Your task to perform on an android device: star an email in the gmail app Image 0: 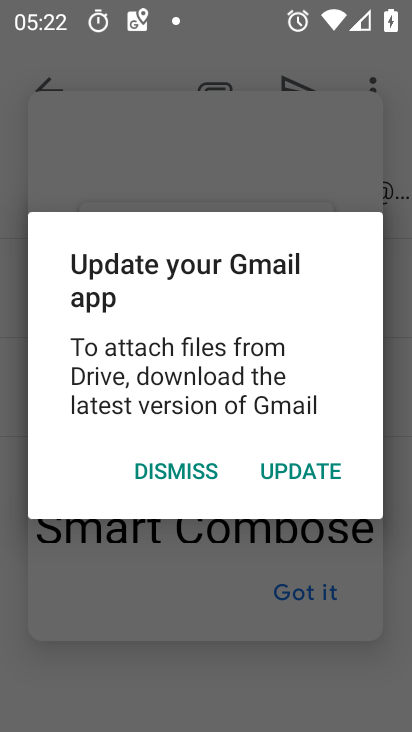
Step 0: press home button
Your task to perform on an android device: star an email in the gmail app Image 1: 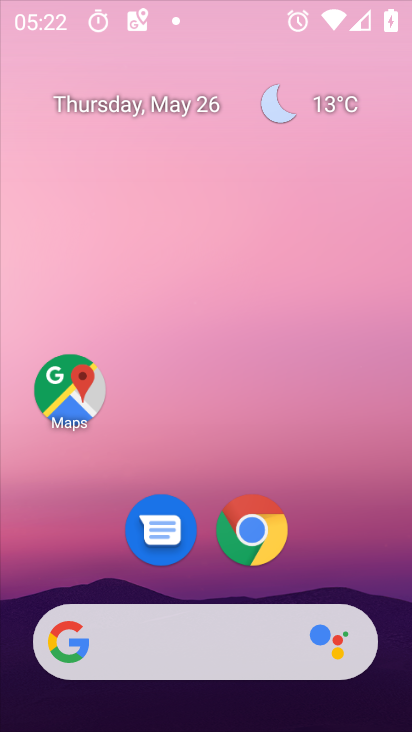
Step 1: drag from (339, 663) to (389, 36)
Your task to perform on an android device: star an email in the gmail app Image 2: 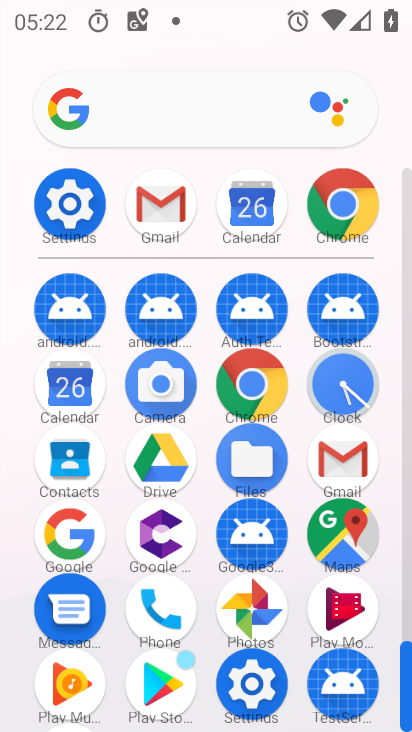
Step 2: click (343, 475)
Your task to perform on an android device: star an email in the gmail app Image 3: 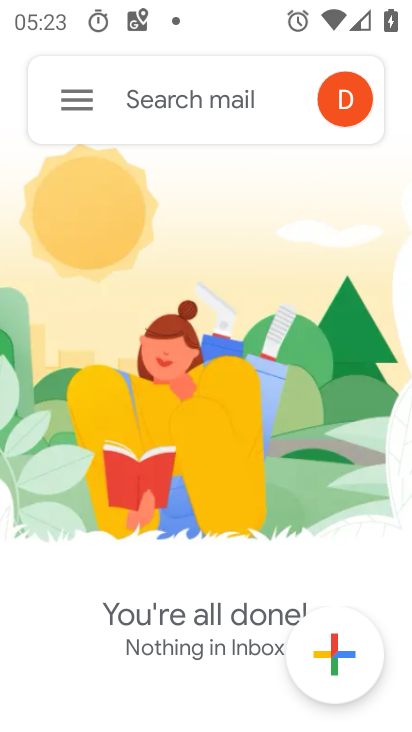
Step 3: click (80, 92)
Your task to perform on an android device: star an email in the gmail app Image 4: 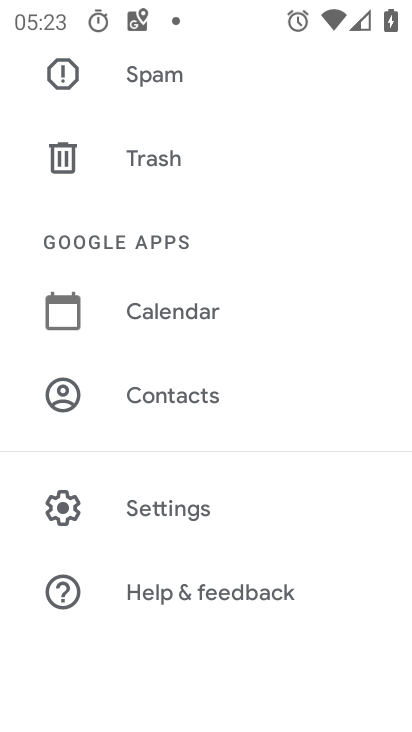
Step 4: drag from (192, 199) to (200, 725)
Your task to perform on an android device: star an email in the gmail app Image 5: 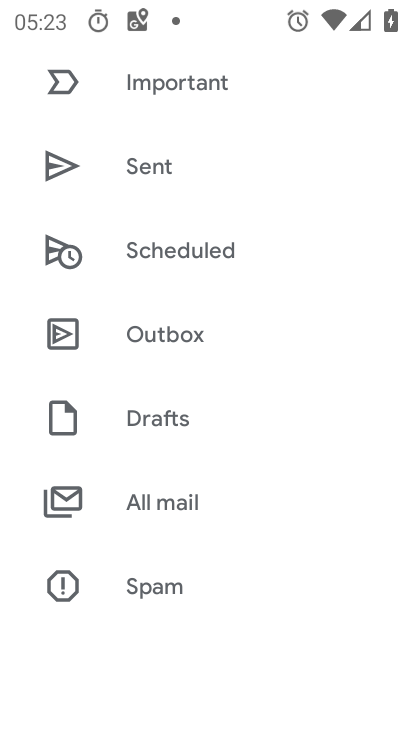
Step 5: drag from (175, 259) to (199, 724)
Your task to perform on an android device: star an email in the gmail app Image 6: 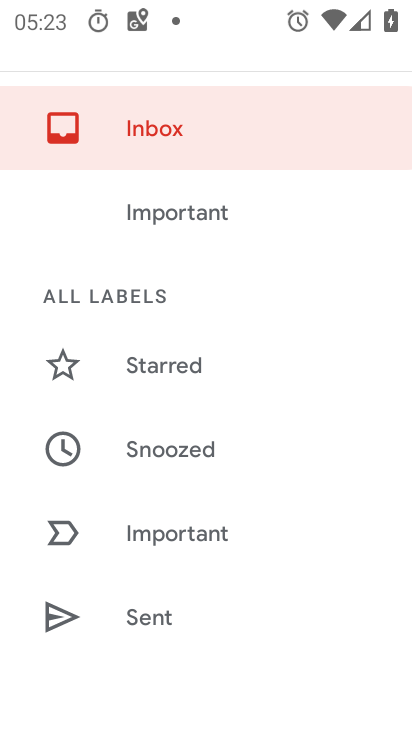
Step 6: click (182, 379)
Your task to perform on an android device: star an email in the gmail app Image 7: 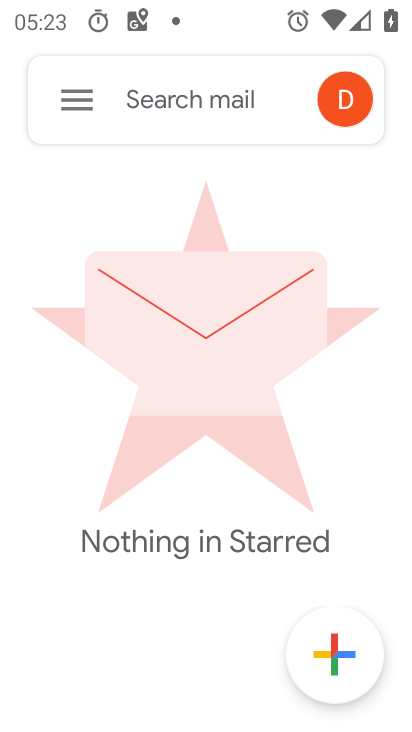
Step 7: task complete